Your task to perform on an android device: set default search engine in the chrome app Image 0: 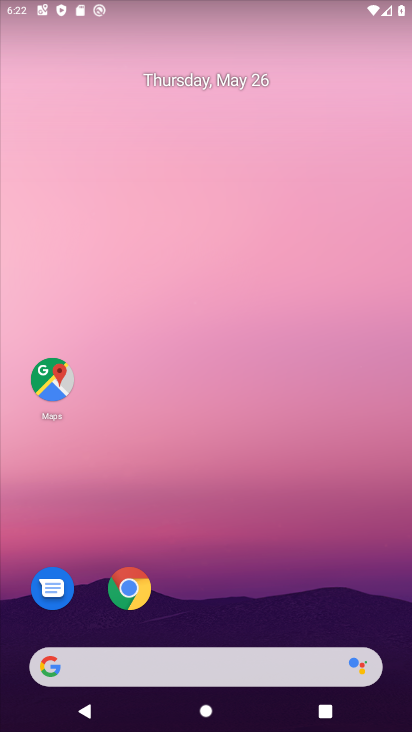
Step 0: drag from (324, 585) to (410, 4)
Your task to perform on an android device: set default search engine in the chrome app Image 1: 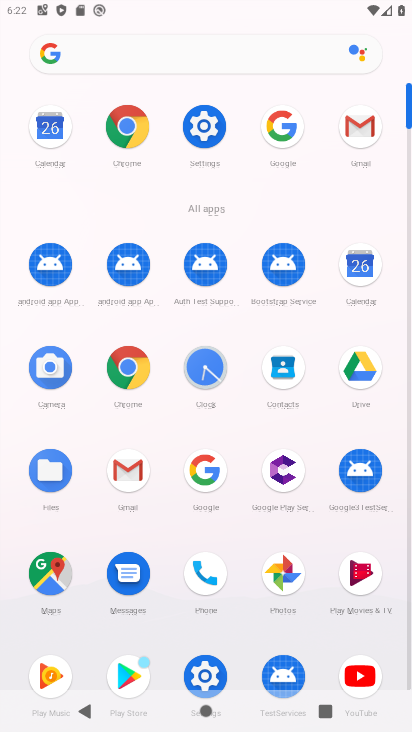
Step 1: click (124, 371)
Your task to perform on an android device: set default search engine in the chrome app Image 2: 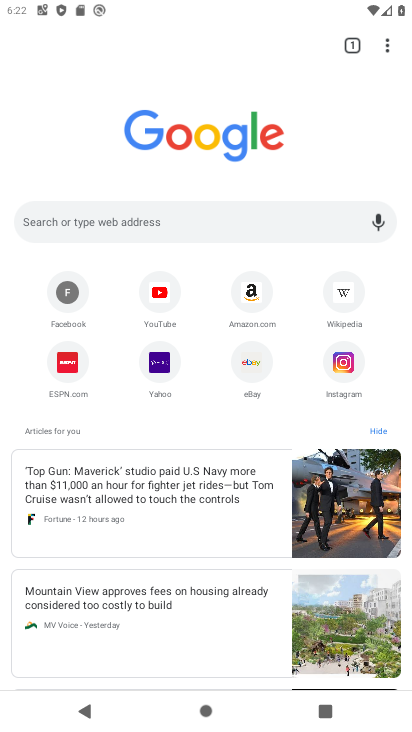
Step 2: click (392, 33)
Your task to perform on an android device: set default search engine in the chrome app Image 3: 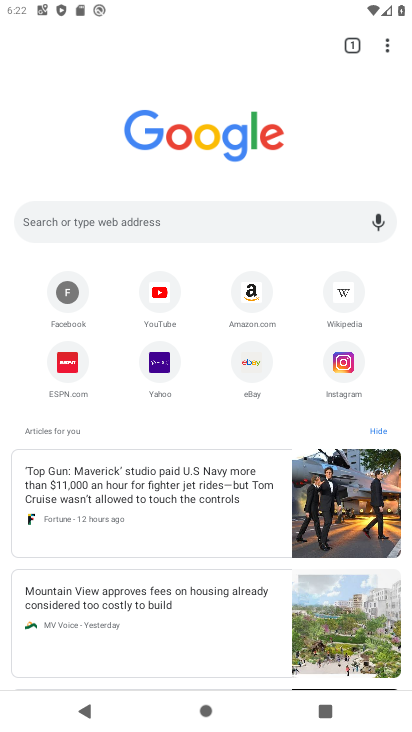
Step 3: click (385, 37)
Your task to perform on an android device: set default search engine in the chrome app Image 4: 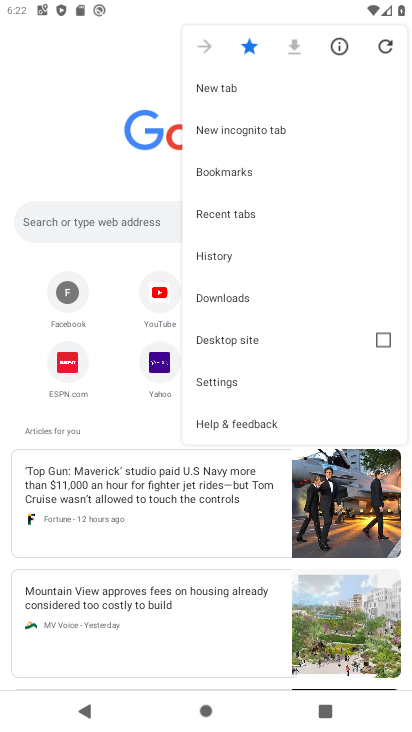
Step 4: click (202, 375)
Your task to perform on an android device: set default search engine in the chrome app Image 5: 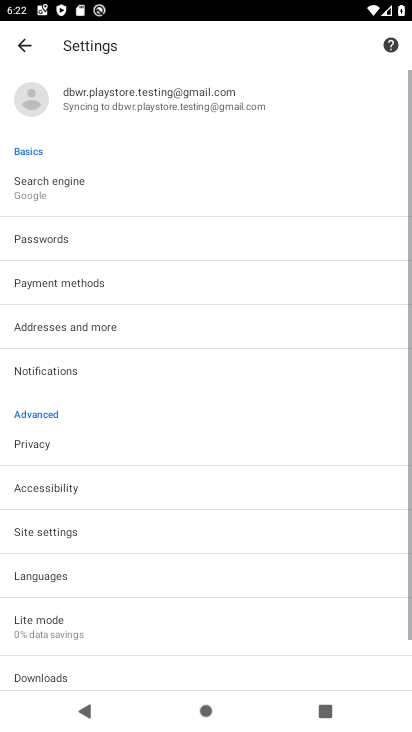
Step 5: click (80, 199)
Your task to perform on an android device: set default search engine in the chrome app Image 6: 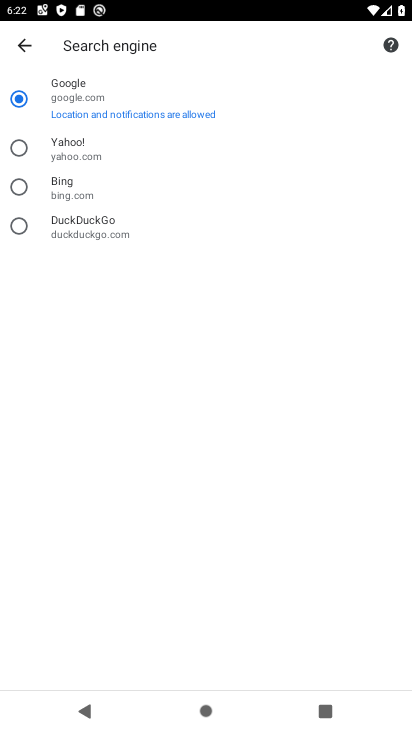
Step 6: click (80, 199)
Your task to perform on an android device: set default search engine in the chrome app Image 7: 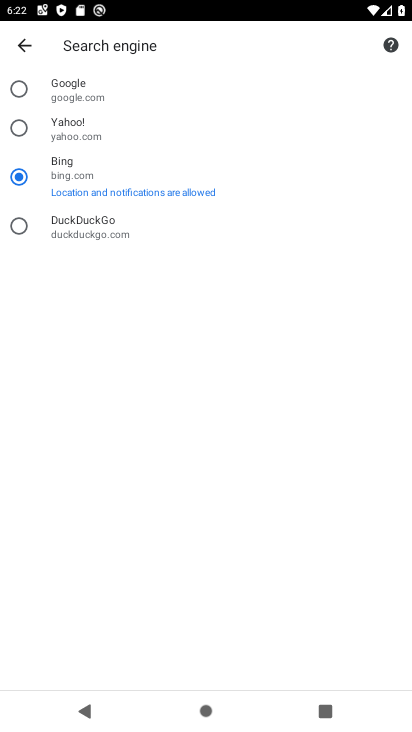
Step 7: task complete